Your task to perform on an android device: Toggle the flashlight Image 0: 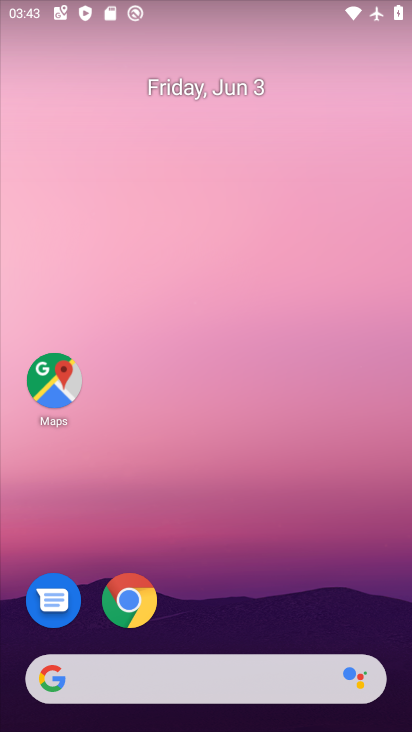
Step 0: drag from (220, 624) to (294, 166)
Your task to perform on an android device: Toggle the flashlight Image 1: 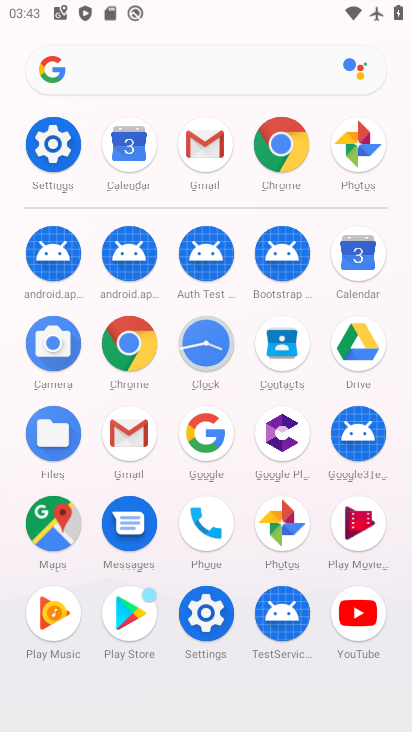
Step 1: click (63, 161)
Your task to perform on an android device: Toggle the flashlight Image 2: 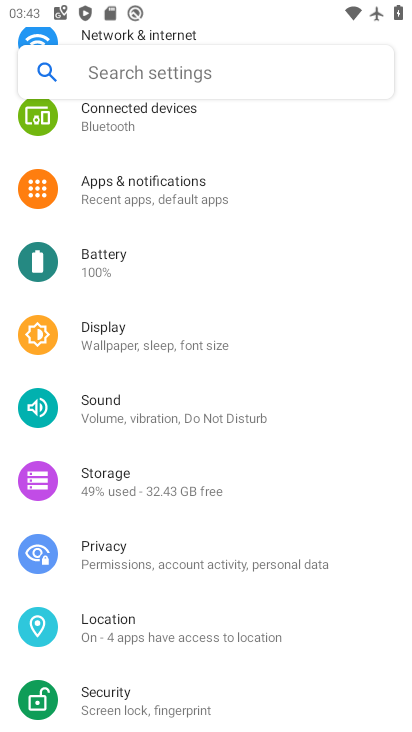
Step 2: click (207, 82)
Your task to perform on an android device: Toggle the flashlight Image 3: 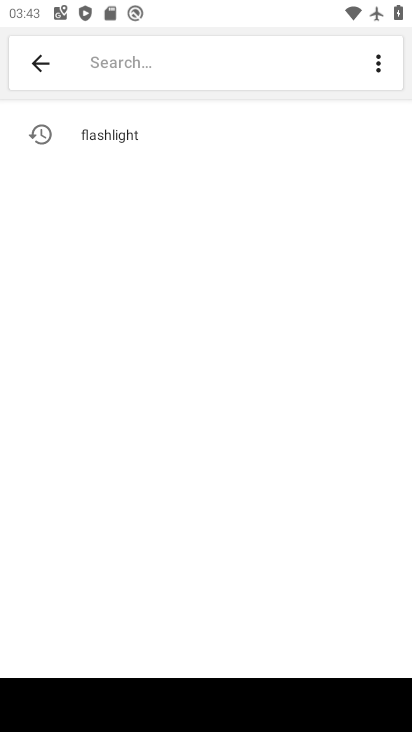
Step 3: click (136, 131)
Your task to perform on an android device: Toggle the flashlight Image 4: 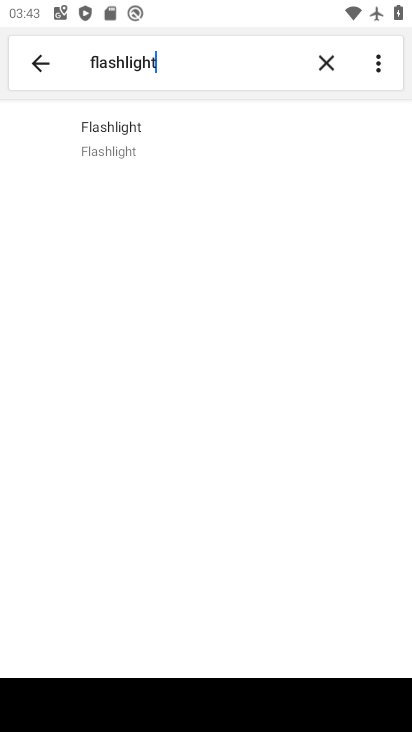
Step 4: click (120, 118)
Your task to perform on an android device: Toggle the flashlight Image 5: 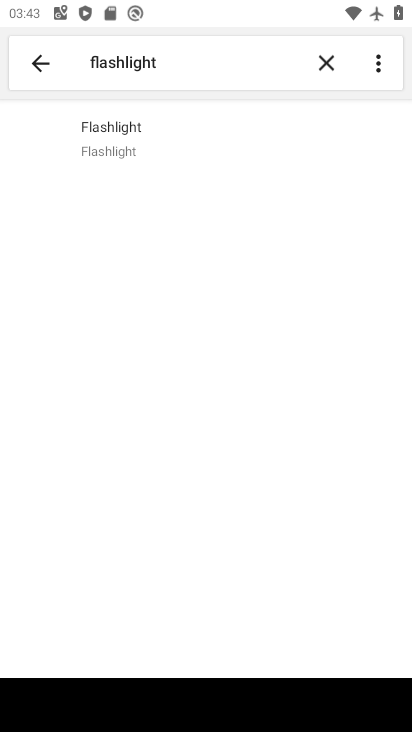
Step 5: click (133, 127)
Your task to perform on an android device: Toggle the flashlight Image 6: 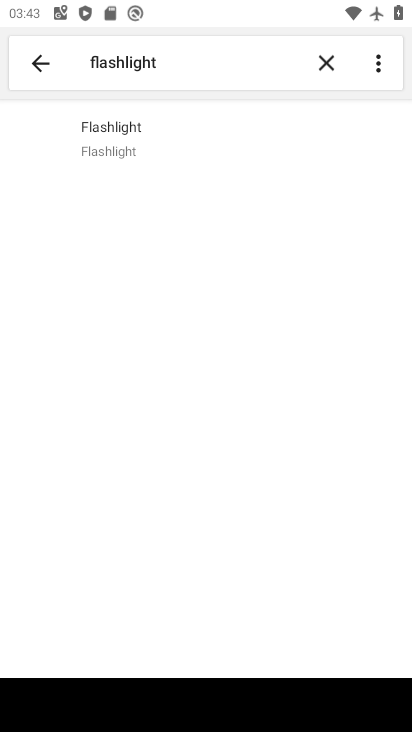
Step 6: task complete